Your task to perform on an android device: open a new tab in the chrome app Image 0: 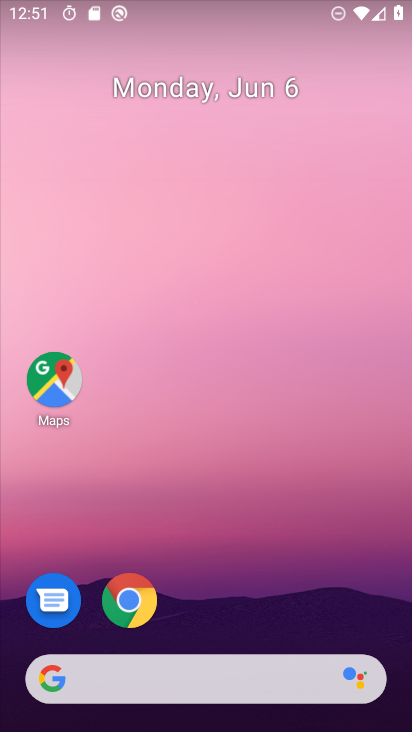
Step 0: click (116, 607)
Your task to perform on an android device: open a new tab in the chrome app Image 1: 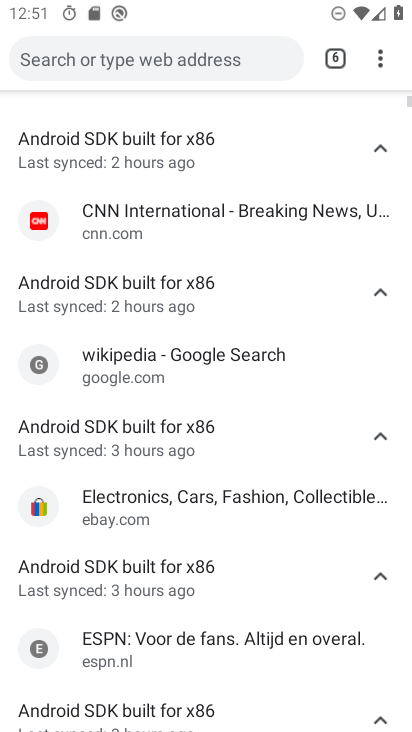
Step 1: click (336, 43)
Your task to perform on an android device: open a new tab in the chrome app Image 2: 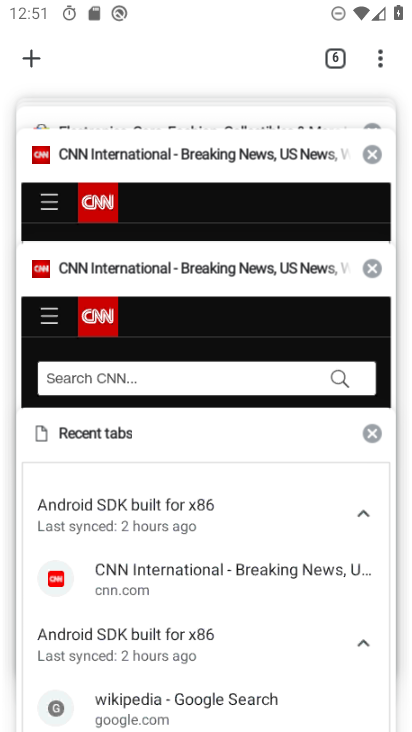
Step 2: click (23, 66)
Your task to perform on an android device: open a new tab in the chrome app Image 3: 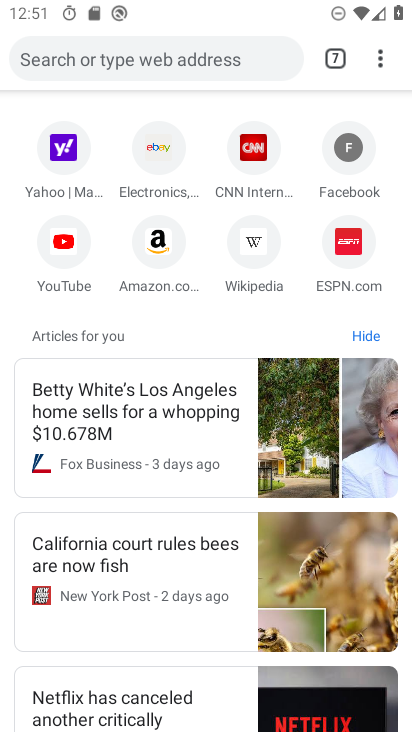
Step 3: task complete